Your task to perform on an android device: Open the calendar app, open the side menu, and click the "Day" option Image 0: 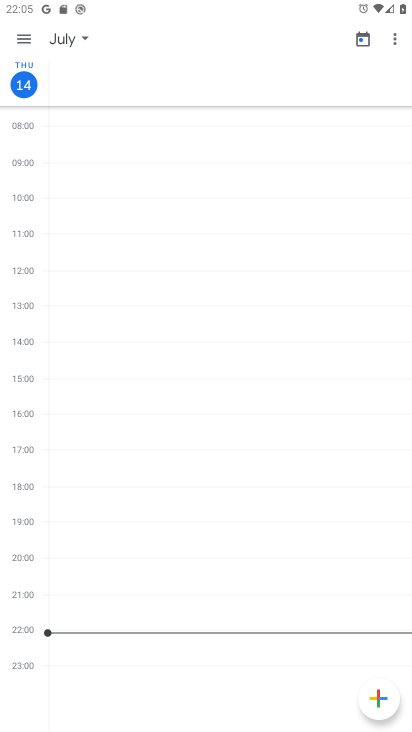
Step 0: click (29, 30)
Your task to perform on an android device: Open the calendar app, open the side menu, and click the "Day" option Image 1: 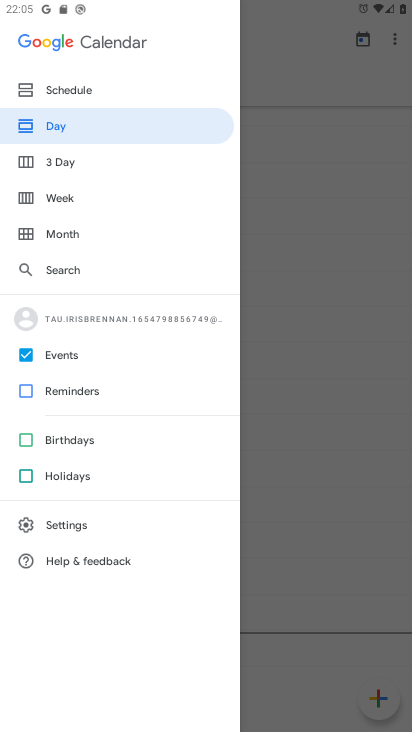
Step 1: task complete